Your task to perform on an android device: Open Maps and search for coffee Image 0: 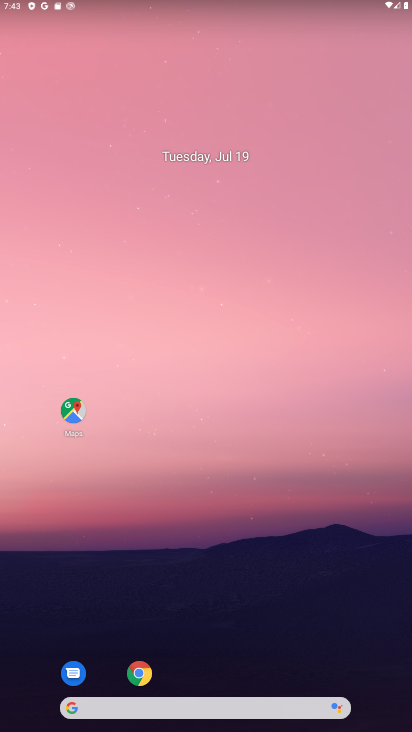
Step 0: click (72, 423)
Your task to perform on an android device: Open Maps and search for coffee Image 1: 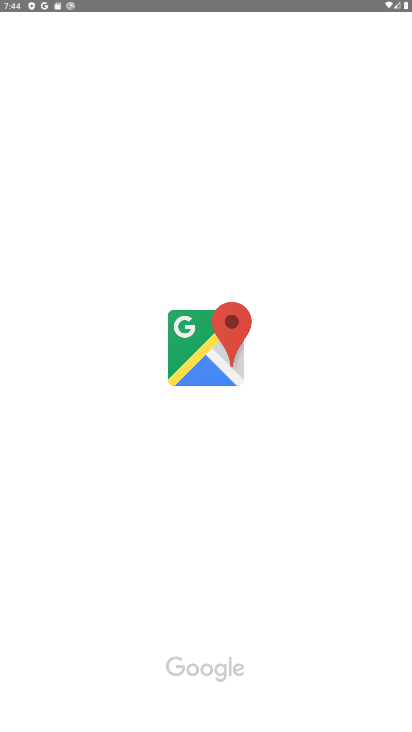
Step 1: task complete